Your task to perform on an android device: turn on improve location accuracy Image 0: 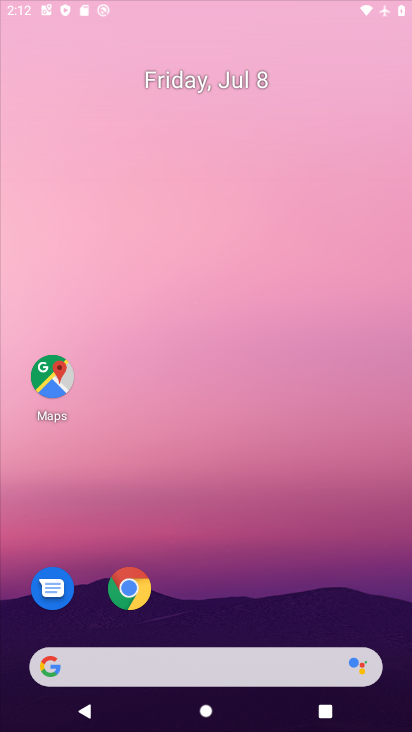
Step 0: press home button
Your task to perform on an android device: turn on improve location accuracy Image 1: 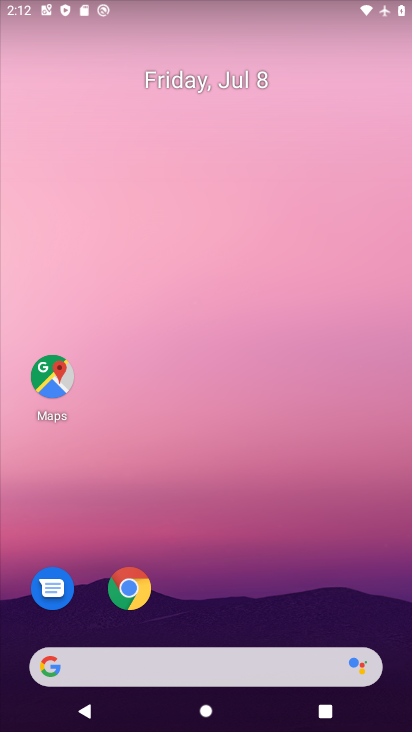
Step 1: drag from (268, 544) to (182, 33)
Your task to perform on an android device: turn on improve location accuracy Image 2: 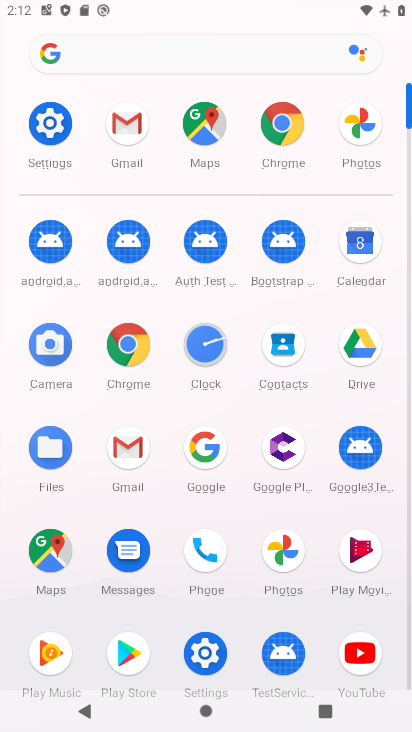
Step 2: click (46, 134)
Your task to perform on an android device: turn on improve location accuracy Image 3: 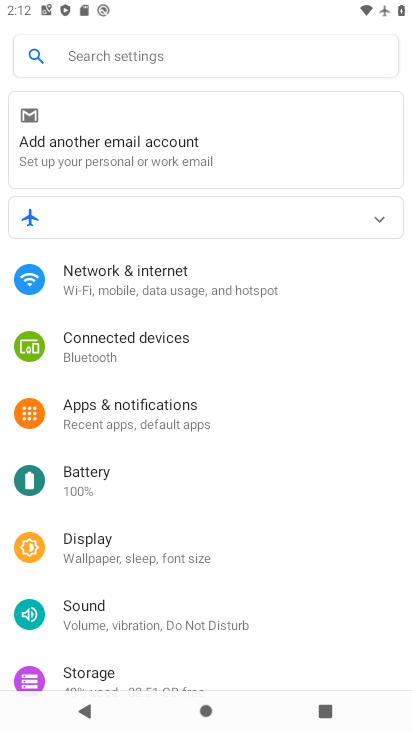
Step 3: drag from (305, 659) to (300, 189)
Your task to perform on an android device: turn on improve location accuracy Image 4: 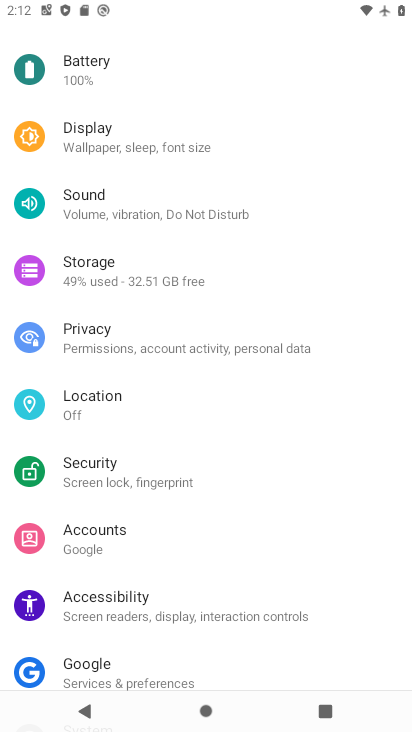
Step 4: click (71, 403)
Your task to perform on an android device: turn on improve location accuracy Image 5: 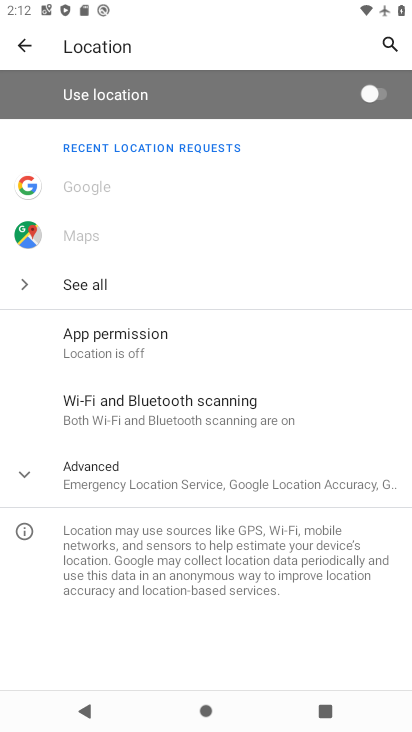
Step 5: click (92, 477)
Your task to perform on an android device: turn on improve location accuracy Image 6: 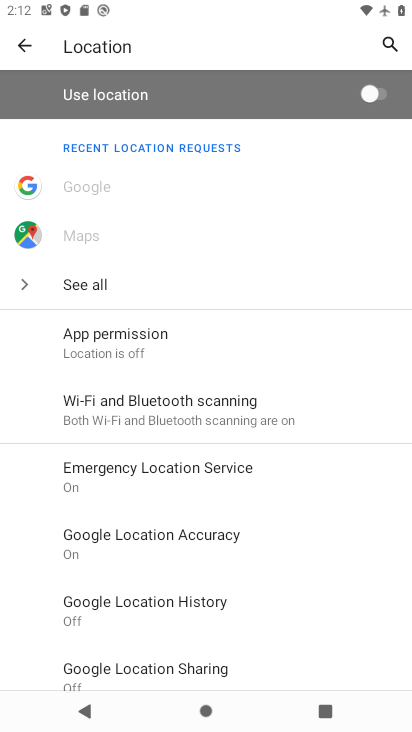
Step 6: click (162, 534)
Your task to perform on an android device: turn on improve location accuracy Image 7: 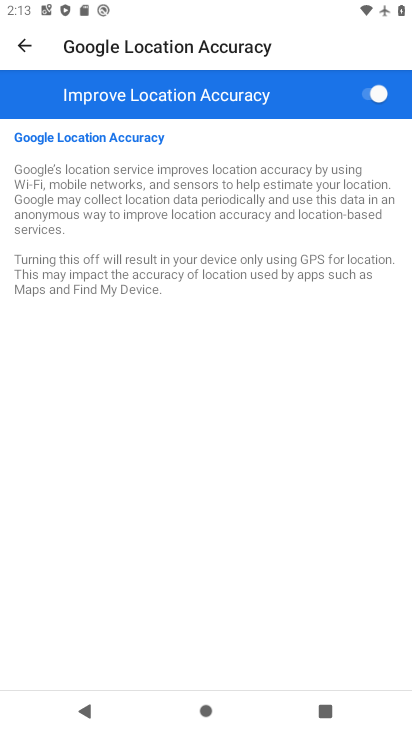
Step 7: task complete